Your task to perform on an android device: clear all cookies in the chrome app Image 0: 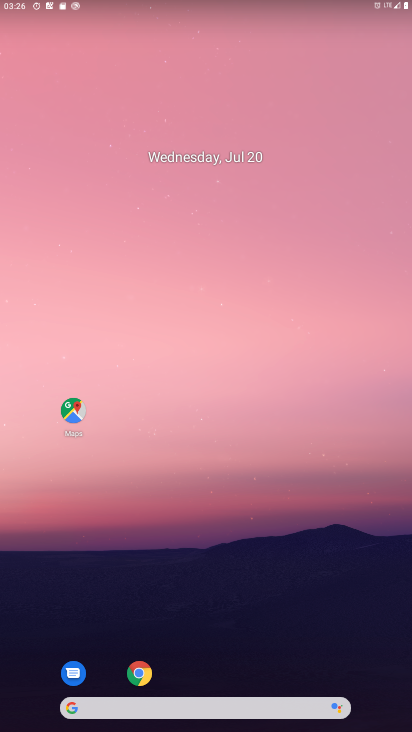
Step 0: click (143, 680)
Your task to perform on an android device: clear all cookies in the chrome app Image 1: 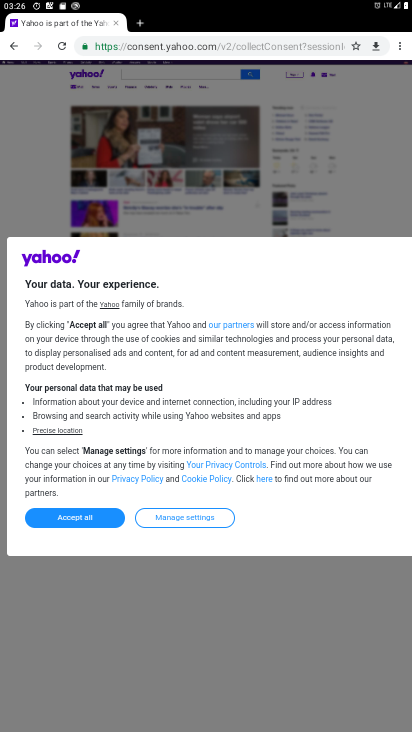
Step 1: click (402, 47)
Your task to perform on an android device: clear all cookies in the chrome app Image 2: 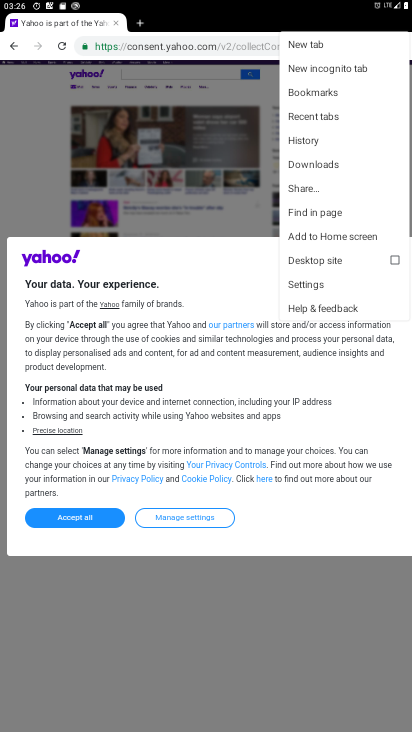
Step 2: click (314, 140)
Your task to perform on an android device: clear all cookies in the chrome app Image 3: 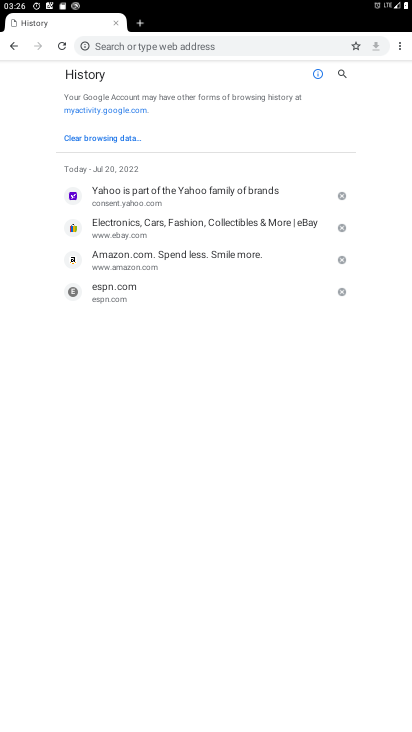
Step 3: click (80, 139)
Your task to perform on an android device: clear all cookies in the chrome app Image 4: 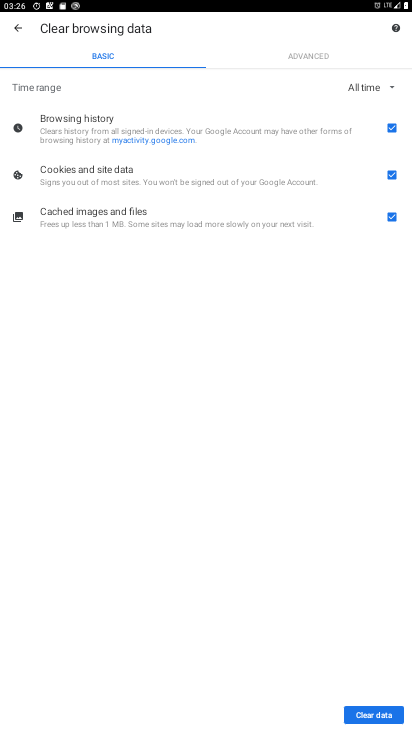
Step 4: click (350, 710)
Your task to perform on an android device: clear all cookies in the chrome app Image 5: 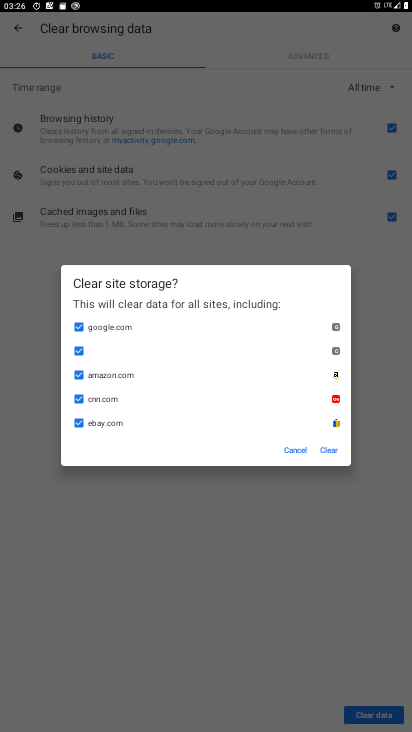
Step 5: click (326, 450)
Your task to perform on an android device: clear all cookies in the chrome app Image 6: 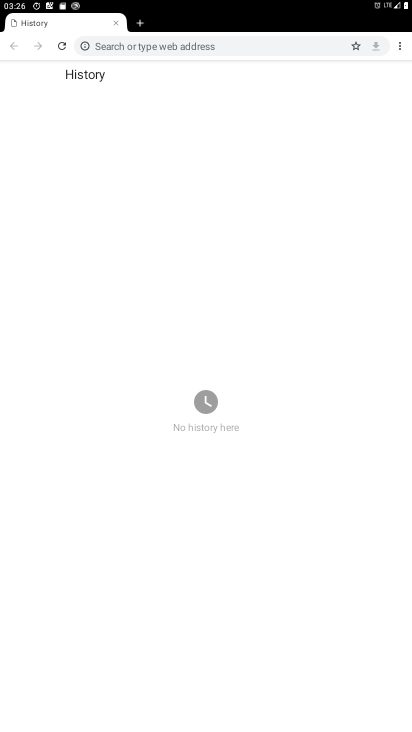
Step 6: task complete